Your task to perform on an android device: change the clock style Image 0: 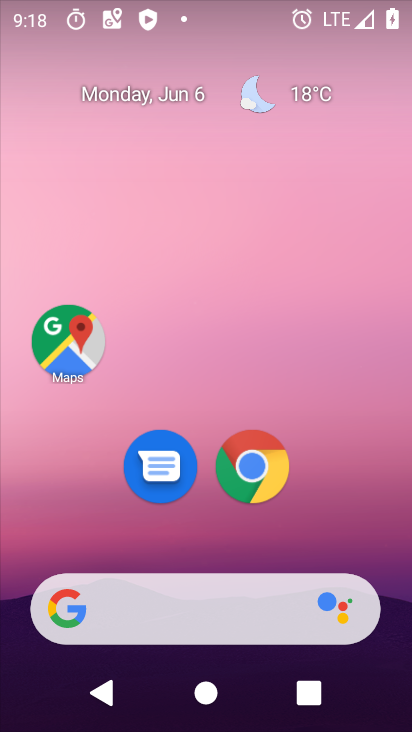
Step 0: drag from (204, 529) to (280, 4)
Your task to perform on an android device: change the clock style Image 1: 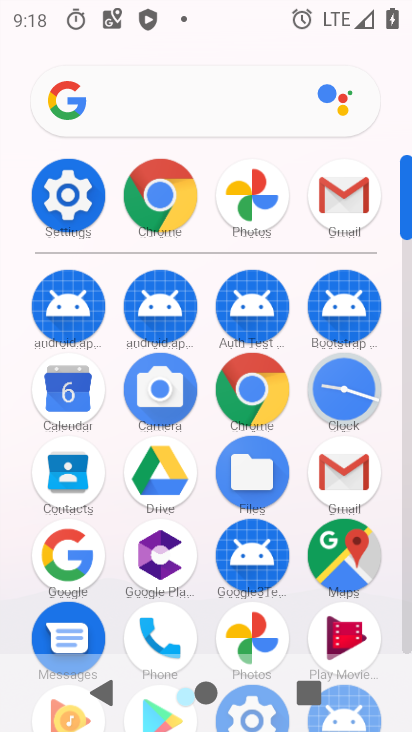
Step 1: click (172, 99)
Your task to perform on an android device: change the clock style Image 2: 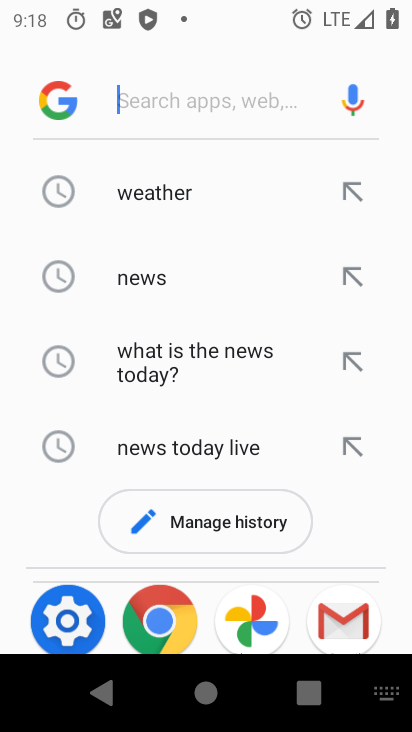
Step 2: press home button
Your task to perform on an android device: change the clock style Image 3: 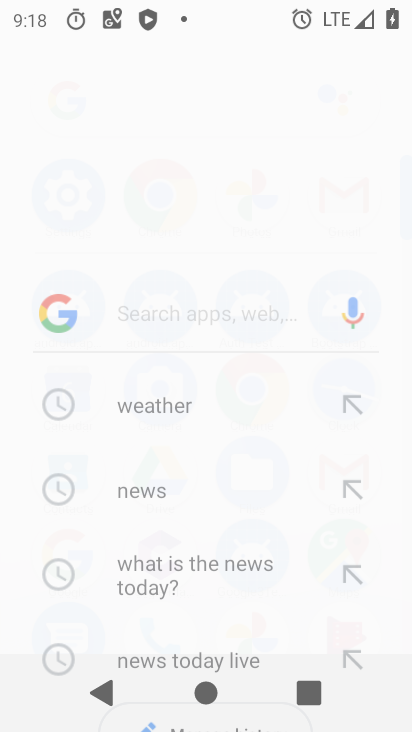
Step 3: press home button
Your task to perform on an android device: change the clock style Image 4: 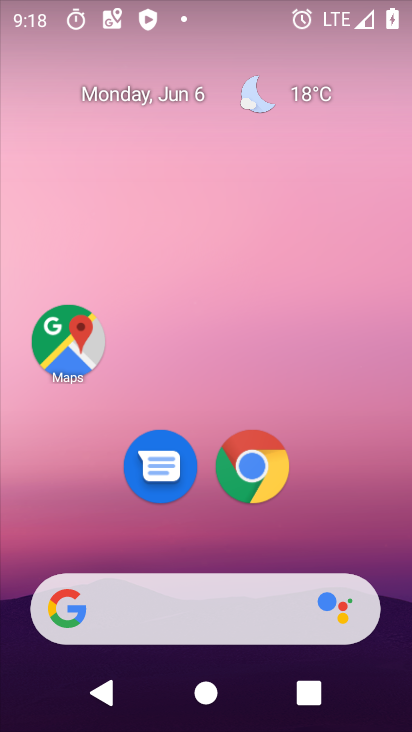
Step 4: drag from (219, 555) to (244, 22)
Your task to perform on an android device: change the clock style Image 5: 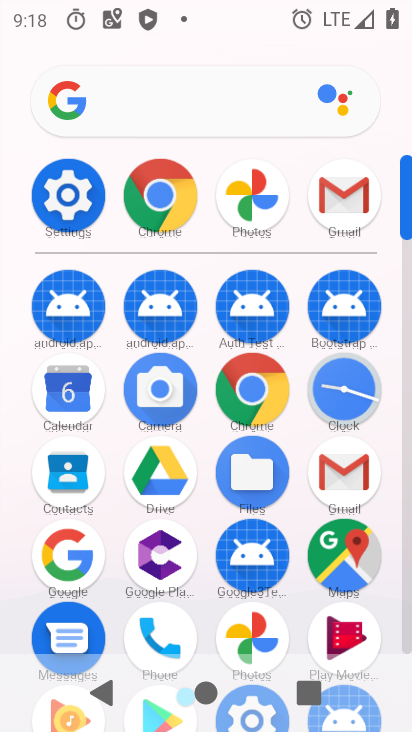
Step 5: click (348, 395)
Your task to perform on an android device: change the clock style Image 6: 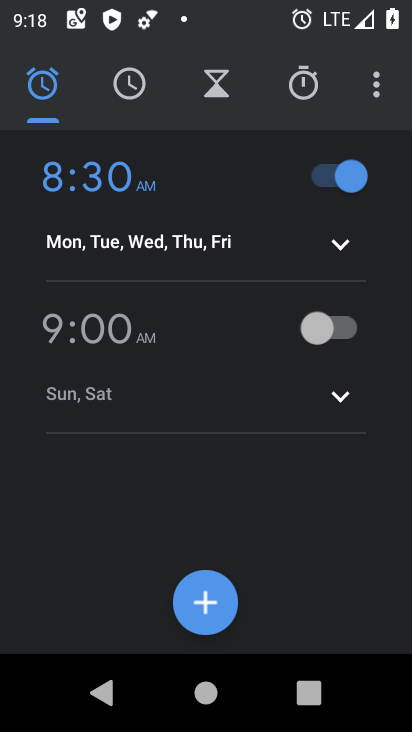
Step 6: click (373, 86)
Your task to perform on an android device: change the clock style Image 7: 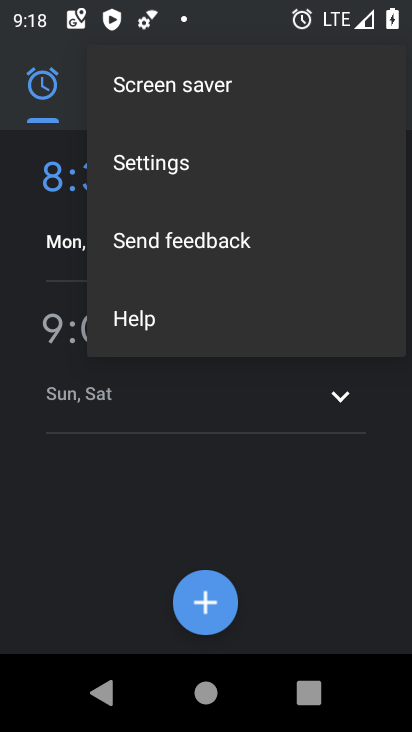
Step 7: click (166, 153)
Your task to perform on an android device: change the clock style Image 8: 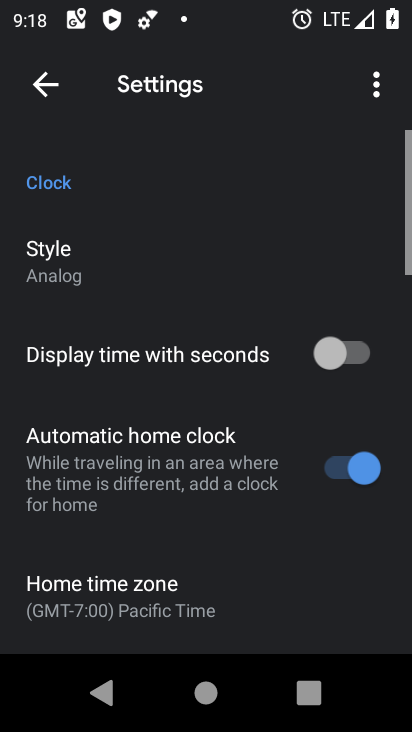
Step 8: click (53, 276)
Your task to perform on an android device: change the clock style Image 9: 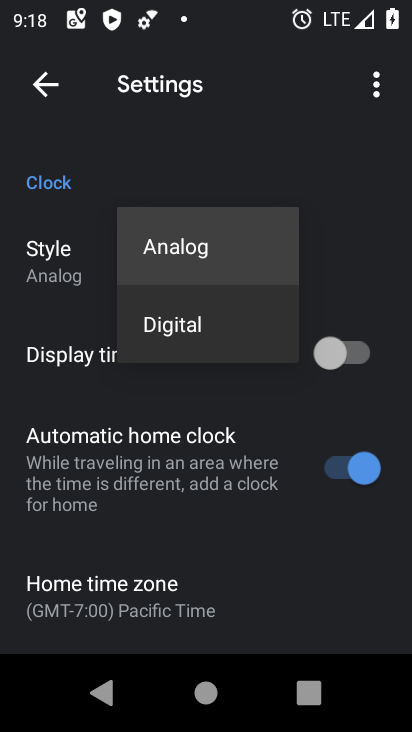
Step 9: click (208, 336)
Your task to perform on an android device: change the clock style Image 10: 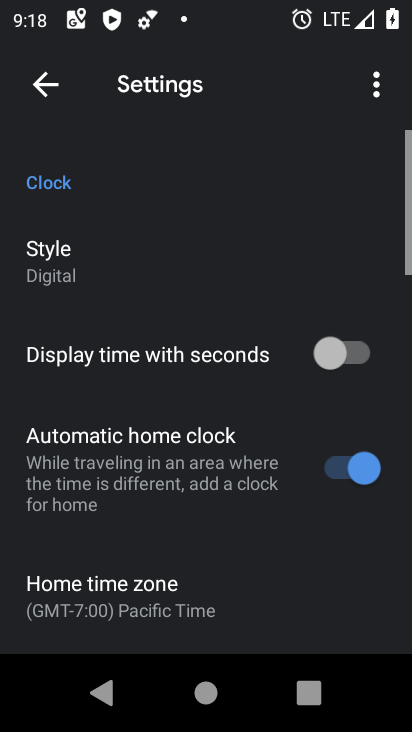
Step 10: task complete